Your task to perform on an android device: turn off picture-in-picture Image 0: 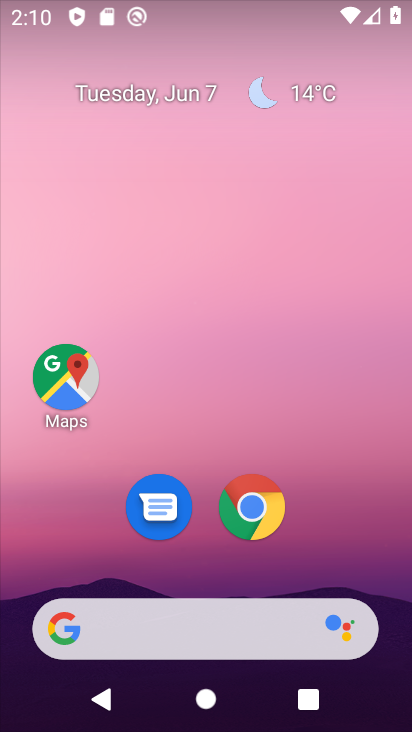
Step 0: click (263, 506)
Your task to perform on an android device: turn off picture-in-picture Image 1: 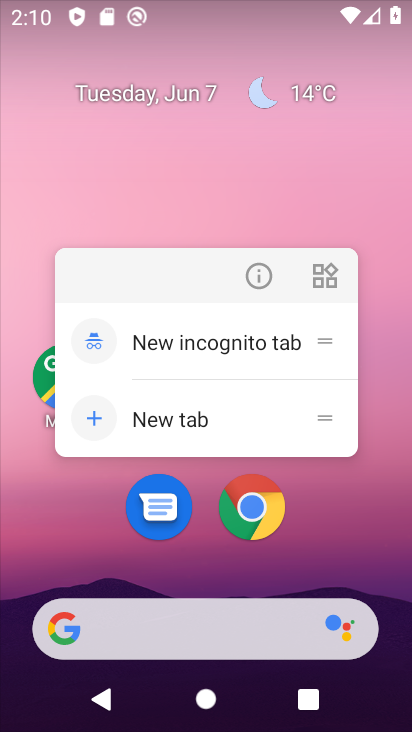
Step 1: click (262, 274)
Your task to perform on an android device: turn off picture-in-picture Image 2: 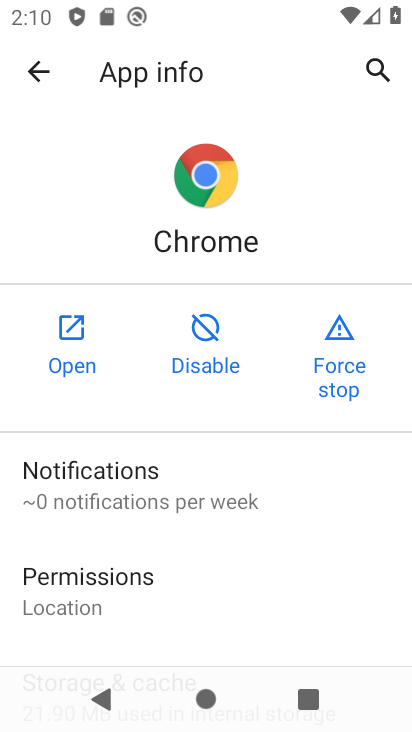
Step 2: drag from (292, 542) to (253, 0)
Your task to perform on an android device: turn off picture-in-picture Image 3: 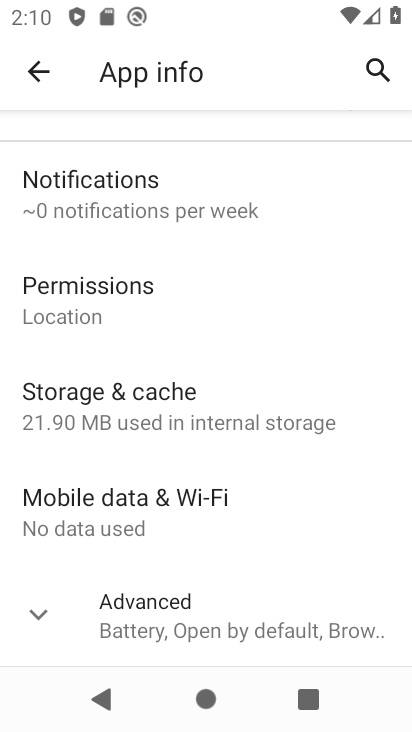
Step 3: click (174, 636)
Your task to perform on an android device: turn off picture-in-picture Image 4: 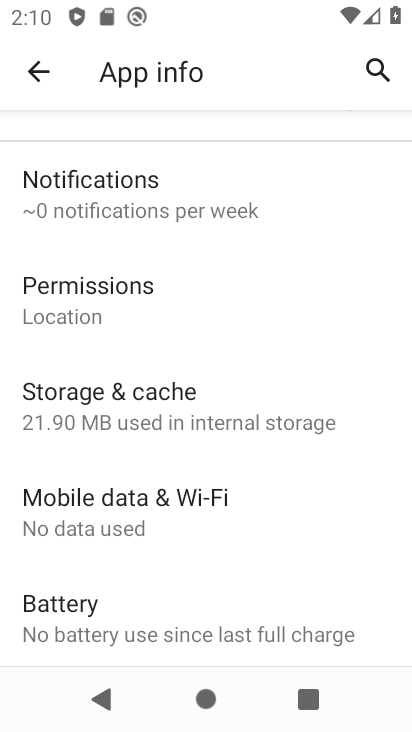
Step 4: drag from (237, 555) to (281, 75)
Your task to perform on an android device: turn off picture-in-picture Image 5: 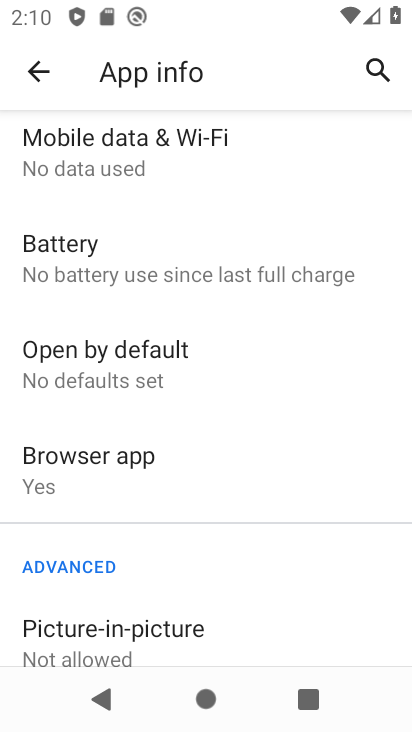
Step 5: drag from (179, 604) to (233, 206)
Your task to perform on an android device: turn off picture-in-picture Image 6: 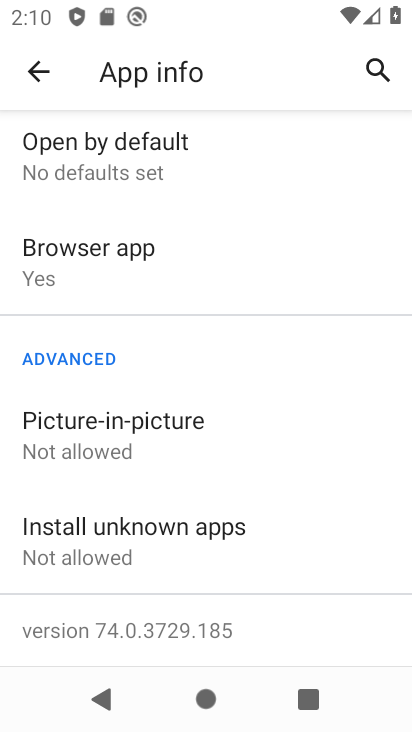
Step 6: click (143, 437)
Your task to perform on an android device: turn off picture-in-picture Image 7: 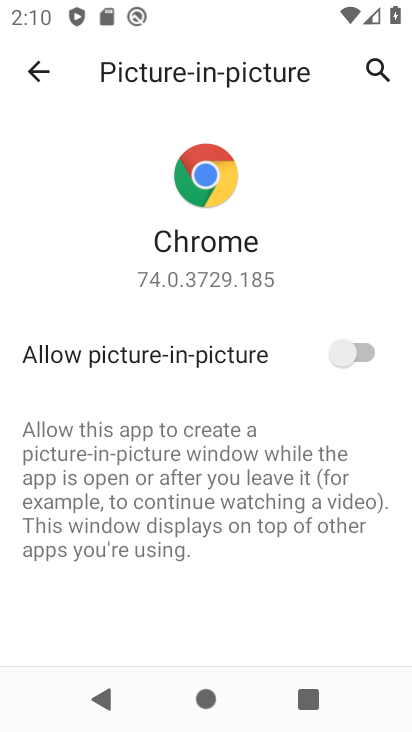
Step 7: task complete